Your task to perform on an android device: Set the phone to "Do not disturb". Image 0: 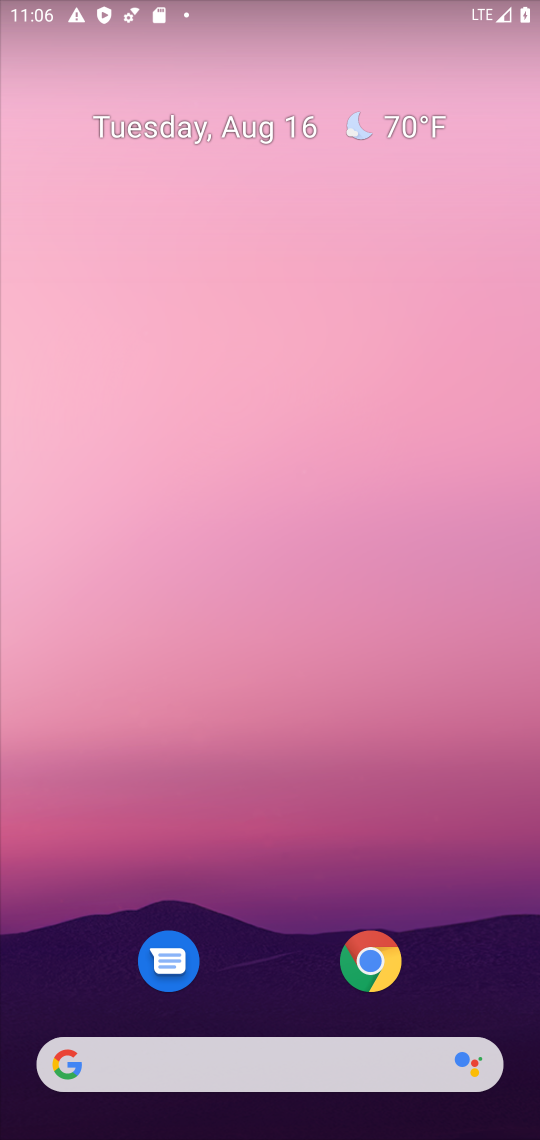
Step 0: drag from (211, 261) to (192, 542)
Your task to perform on an android device: Set the phone to "Do not disturb". Image 1: 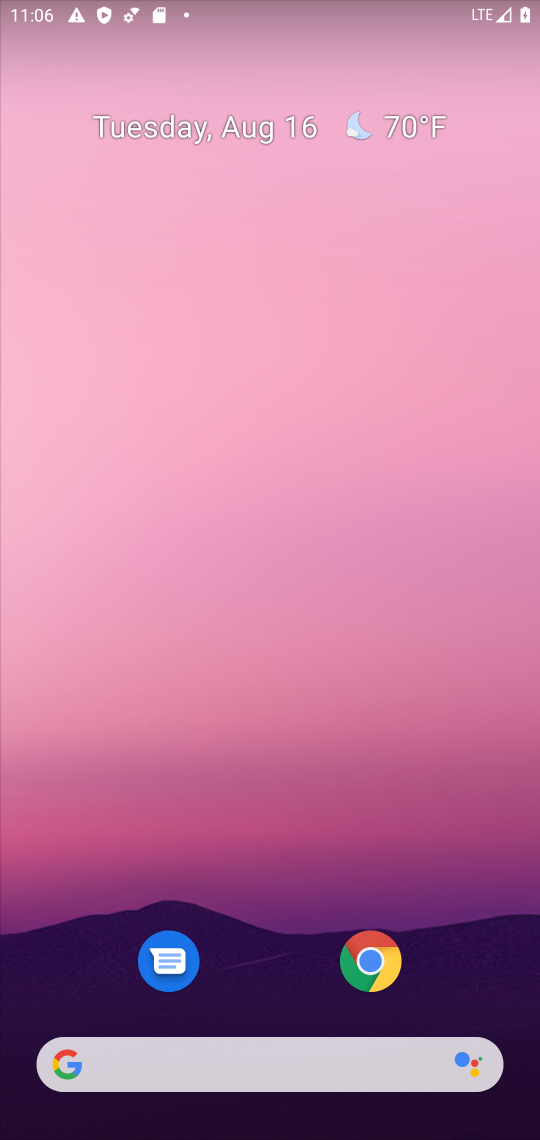
Step 1: drag from (241, 32) to (241, 345)
Your task to perform on an android device: Set the phone to "Do not disturb". Image 2: 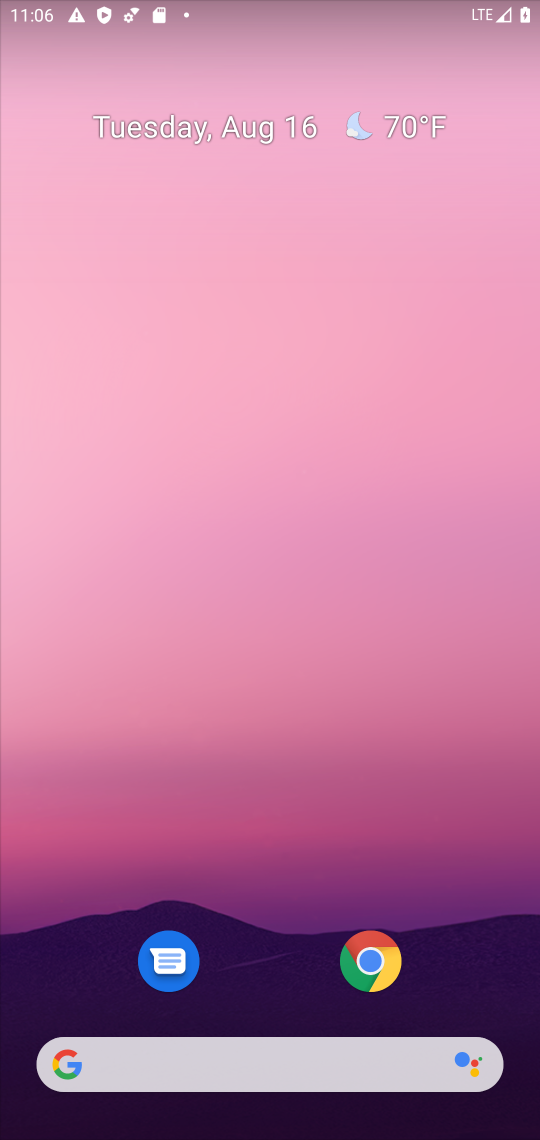
Step 2: drag from (269, 4) to (155, 577)
Your task to perform on an android device: Set the phone to "Do not disturb". Image 3: 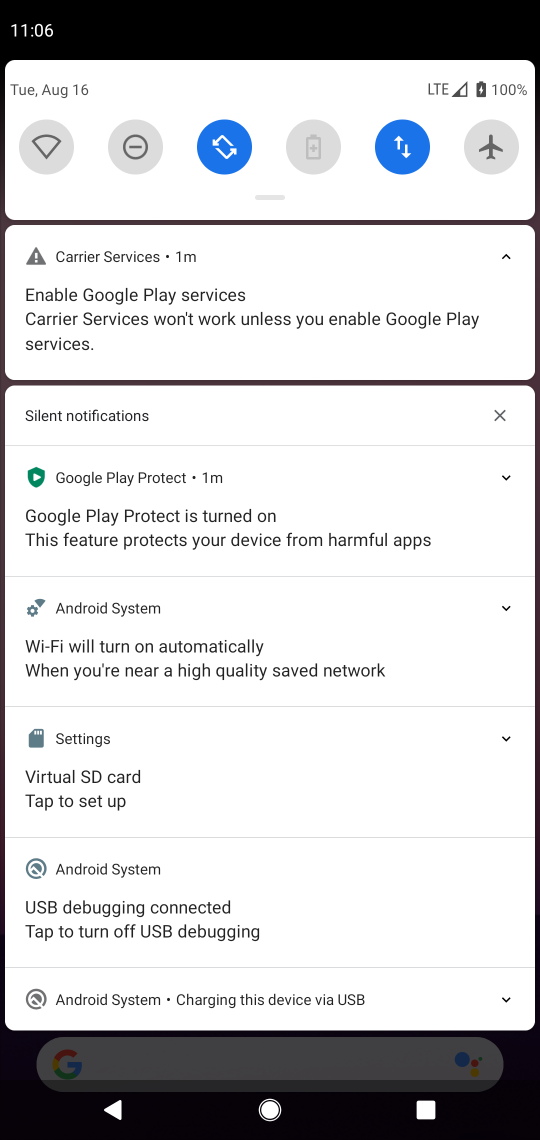
Step 3: click (128, 156)
Your task to perform on an android device: Set the phone to "Do not disturb". Image 4: 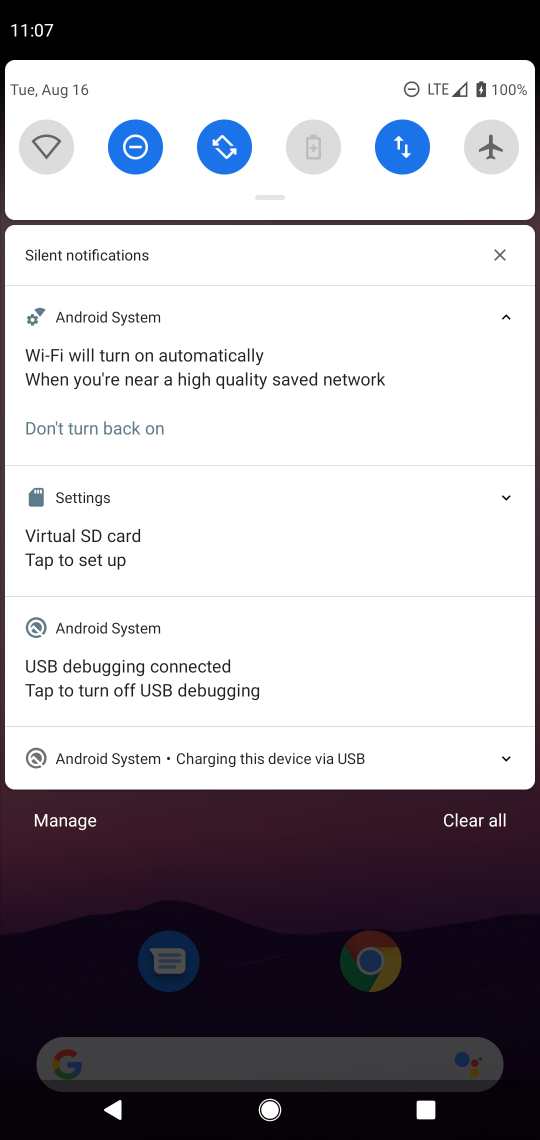
Step 4: task complete